Your task to perform on an android device: move an email to a new category in the gmail app Image 0: 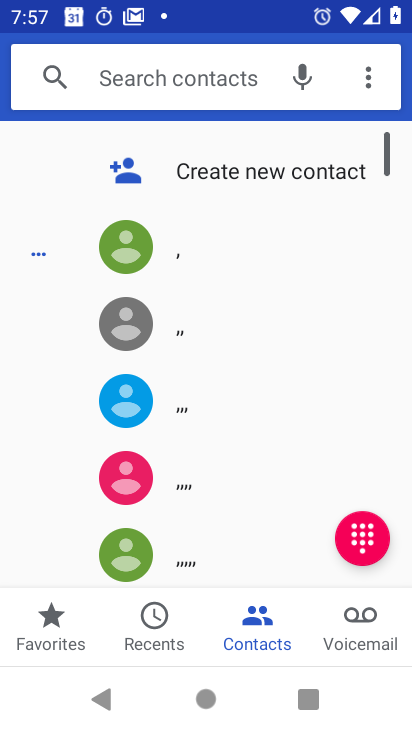
Step 0: press home button
Your task to perform on an android device: move an email to a new category in the gmail app Image 1: 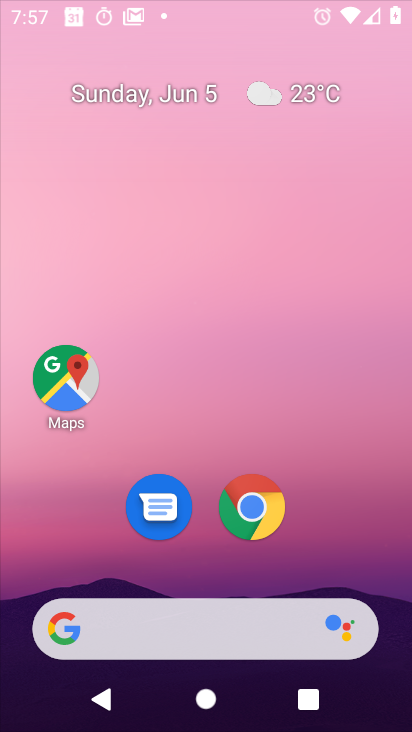
Step 1: drag from (287, 666) to (150, 0)
Your task to perform on an android device: move an email to a new category in the gmail app Image 2: 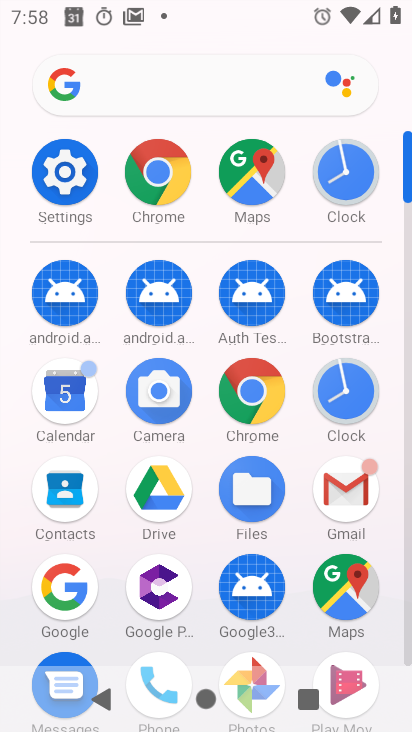
Step 2: click (329, 493)
Your task to perform on an android device: move an email to a new category in the gmail app Image 3: 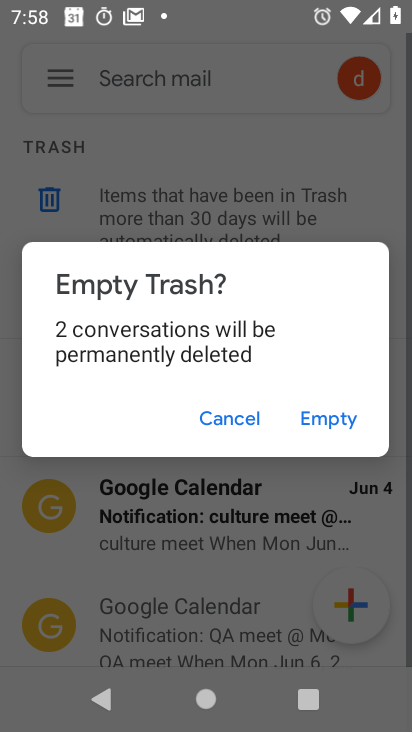
Step 3: click (248, 427)
Your task to perform on an android device: move an email to a new category in the gmail app Image 4: 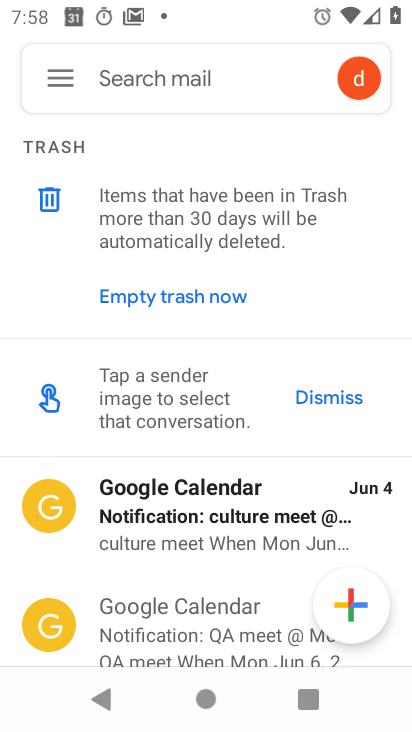
Step 4: click (32, 56)
Your task to perform on an android device: move an email to a new category in the gmail app Image 5: 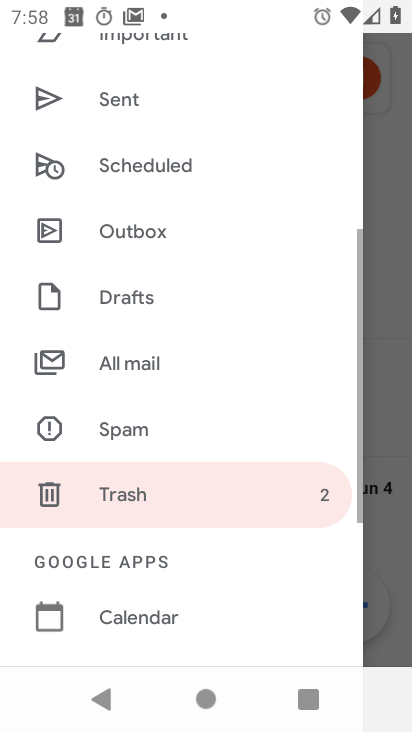
Step 5: drag from (149, 533) to (172, 151)
Your task to perform on an android device: move an email to a new category in the gmail app Image 6: 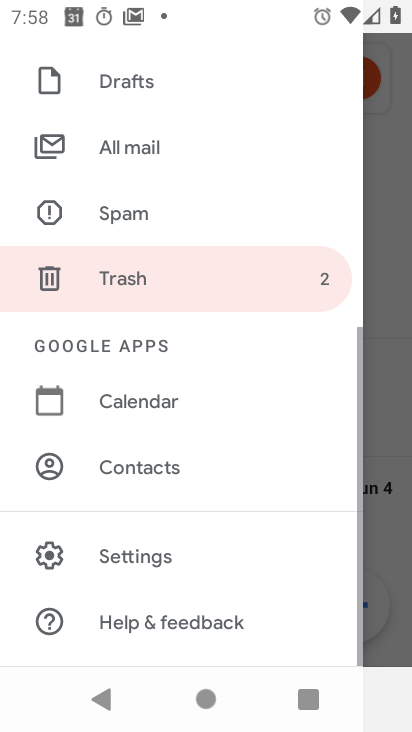
Step 6: click (150, 544)
Your task to perform on an android device: move an email to a new category in the gmail app Image 7: 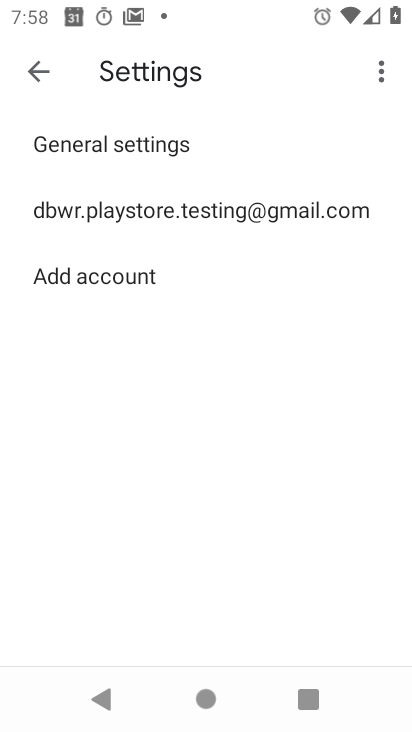
Step 7: click (154, 214)
Your task to perform on an android device: move an email to a new category in the gmail app Image 8: 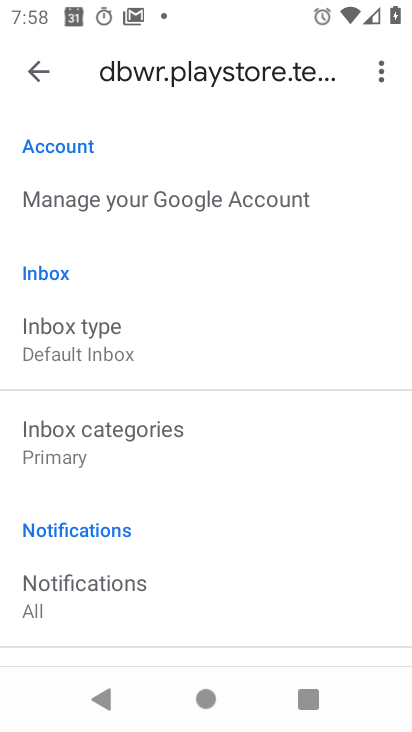
Step 8: click (142, 450)
Your task to perform on an android device: move an email to a new category in the gmail app Image 9: 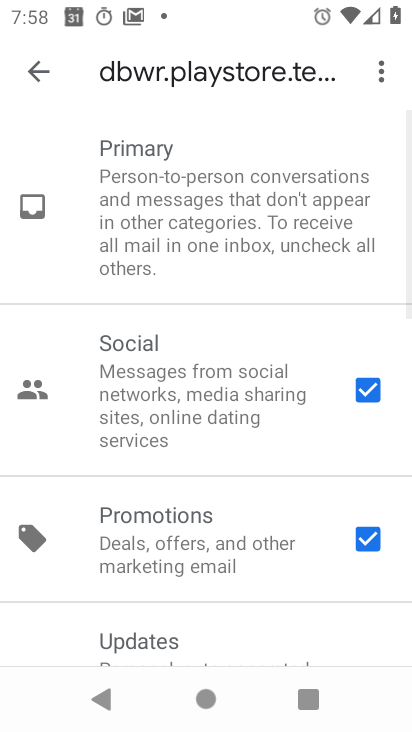
Step 9: click (363, 549)
Your task to perform on an android device: move an email to a new category in the gmail app Image 10: 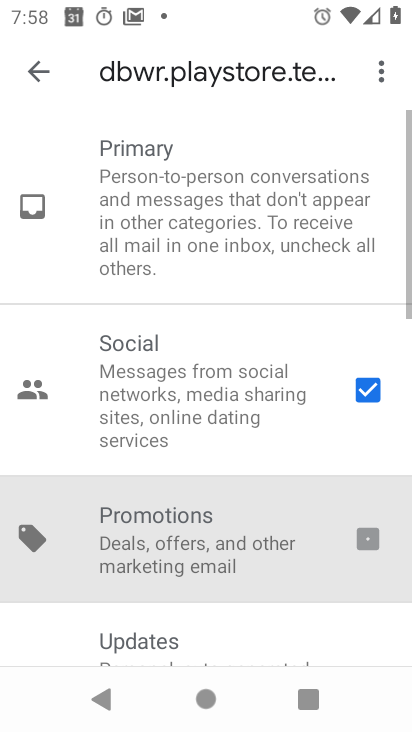
Step 10: drag from (302, 518) to (276, 299)
Your task to perform on an android device: move an email to a new category in the gmail app Image 11: 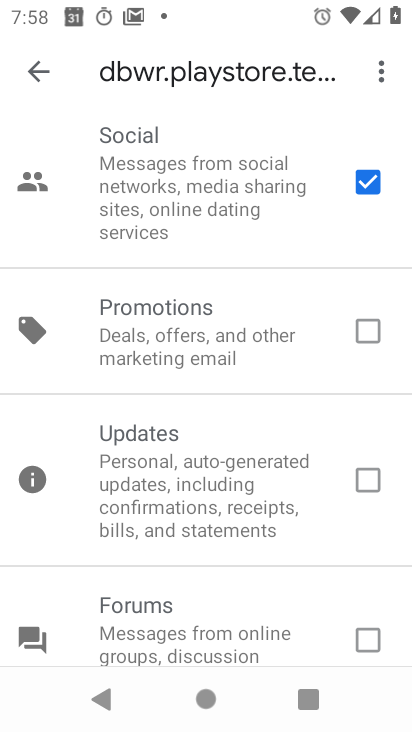
Step 11: click (369, 472)
Your task to perform on an android device: move an email to a new category in the gmail app Image 12: 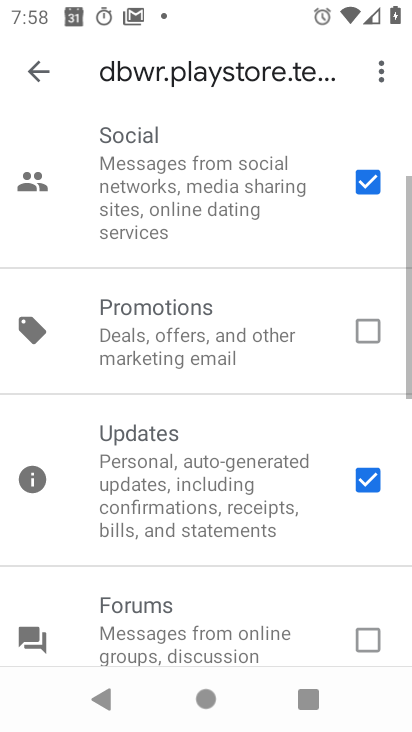
Step 12: task complete